Your task to perform on an android device: check android version Image 0: 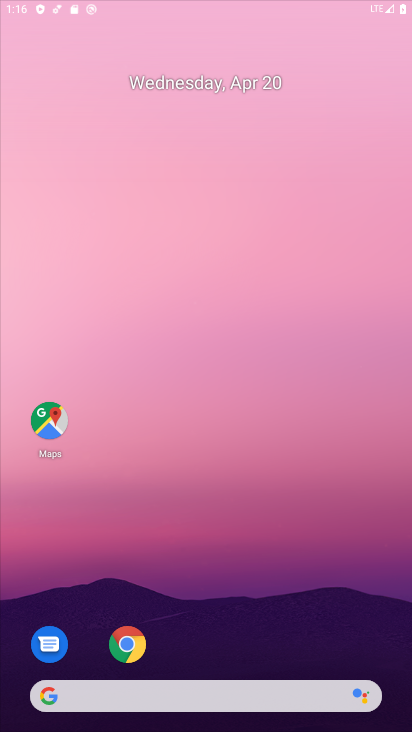
Step 0: drag from (300, 640) to (263, 133)
Your task to perform on an android device: check android version Image 1: 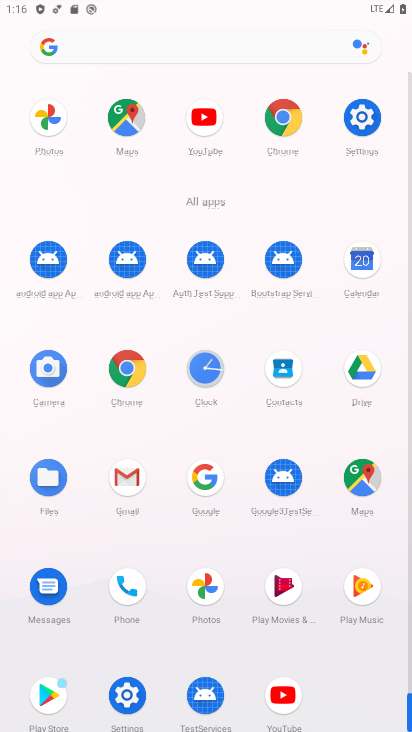
Step 1: click (373, 115)
Your task to perform on an android device: check android version Image 2: 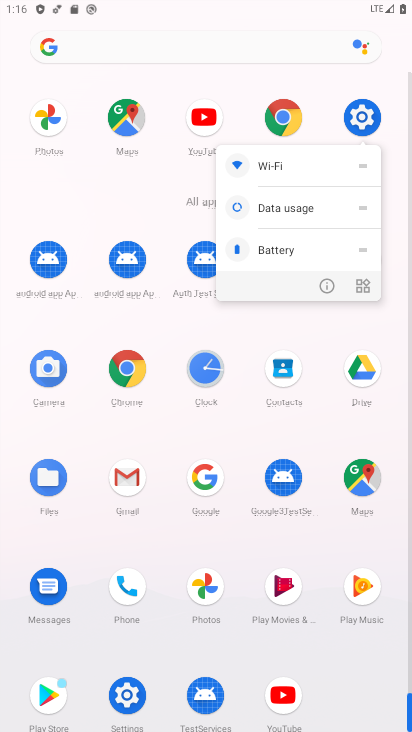
Step 2: click (365, 116)
Your task to perform on an android device: check android version Image 3: 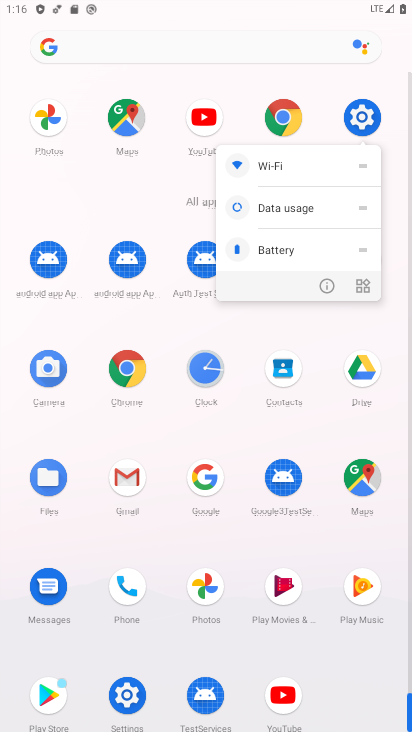
Step 3: click (365, 116)
Your task to perform on an android device: check android version Image 4: 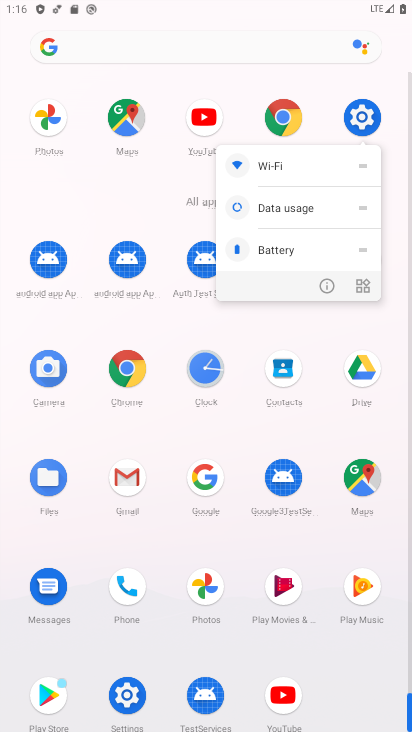
Step 4: click (365, 116)
Your task to perform on an android device: check android version Image 5: 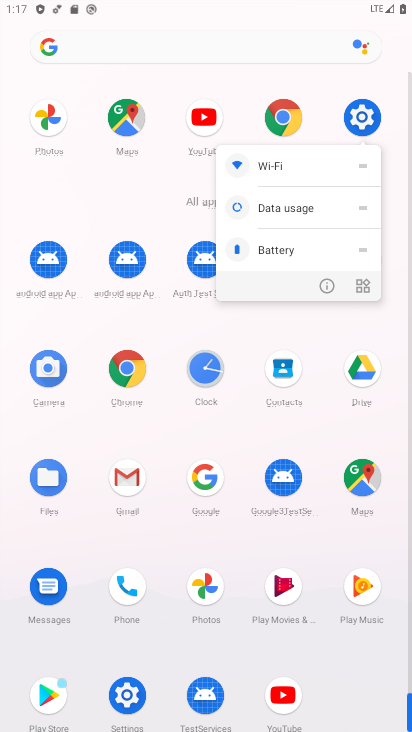
Step 5: click (129, 682)
Your task to perform on an android device: check android version Image 6: 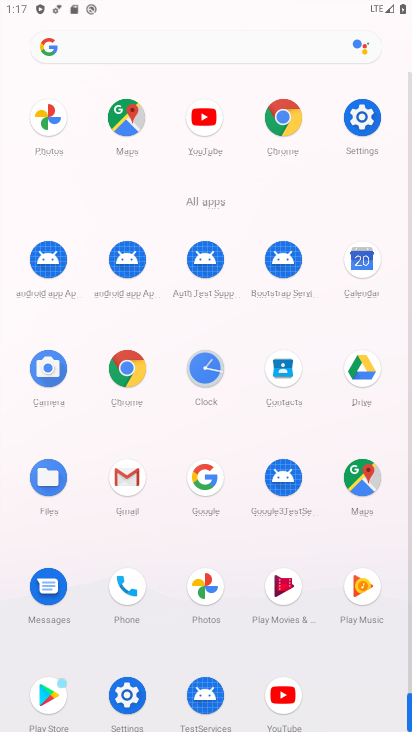
Step 6: click (128, 681)
Your task to perform on an android device: check android version Image 7: 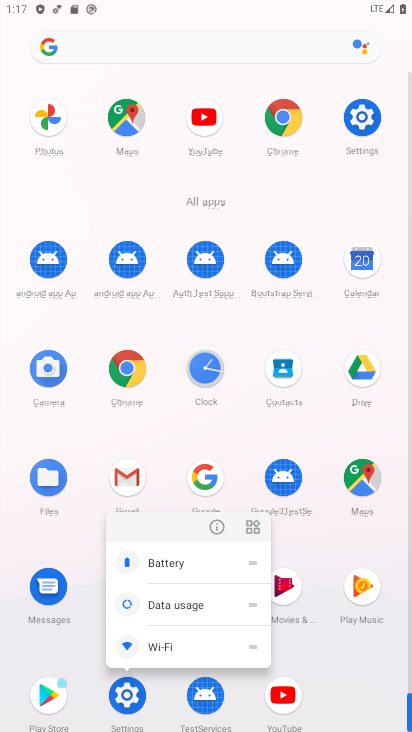
Step 7: click (130, 683)
Your task to perform on an android device: check android version Image 8: 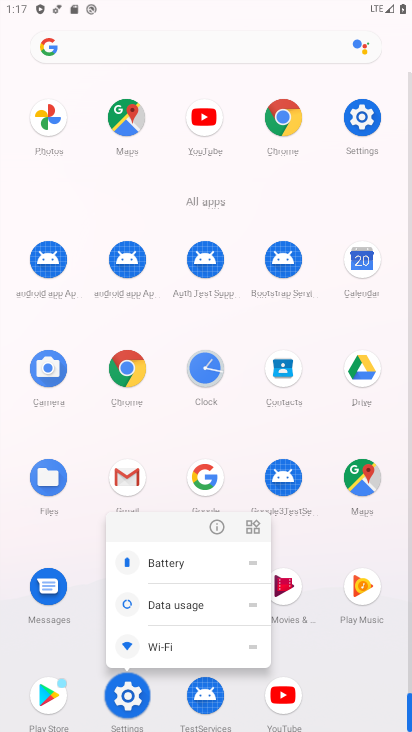
Step 8: click (130, 683)
Your task to perform on an android device: check android version Image 9: 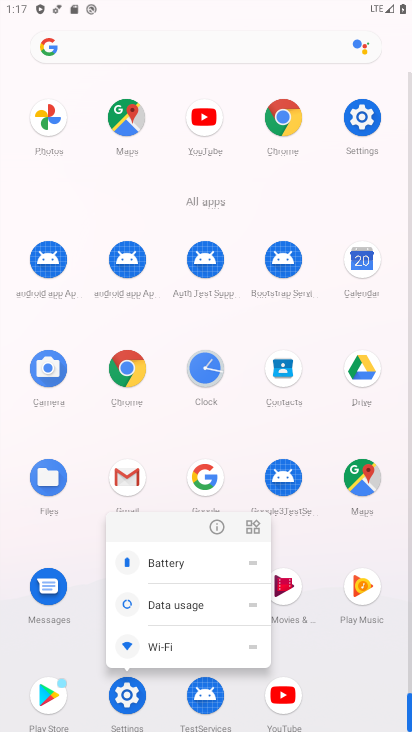
Step 9: click (130, 683)
Your task to perform on an android device: check android version Image 10: 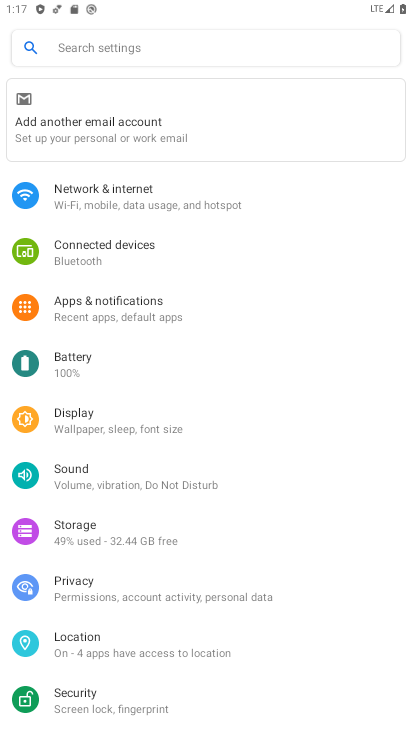
Step 10: drag from (129, 690) to (136, 235)
Your task to perform on an android device: check android version Image 11: 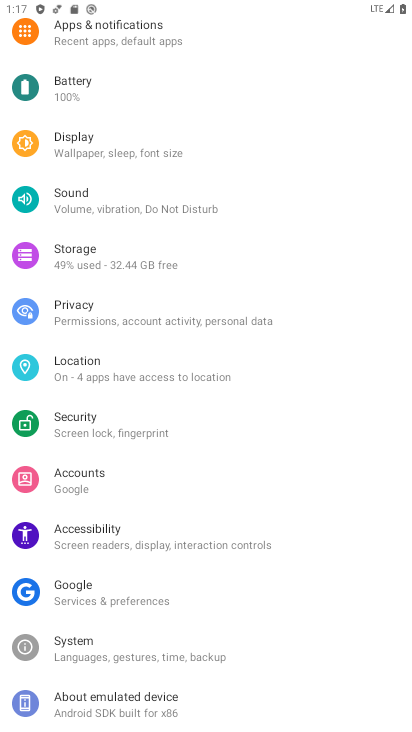
Step 11: click (128, 704)
Your task to perform on an android device: check android version Image 12: 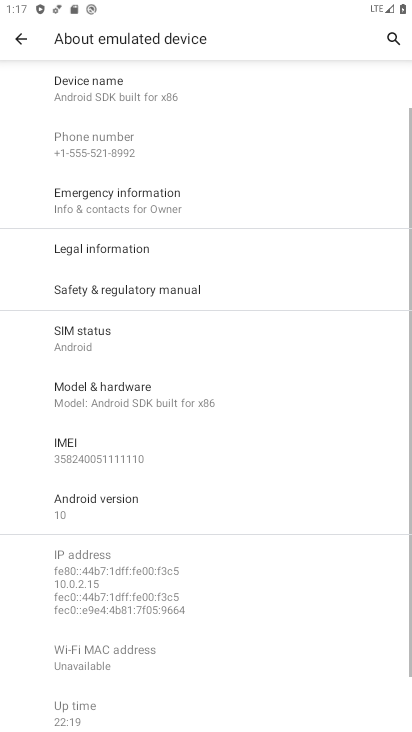
Step 12: drag from (142, 192) to (173, 605)
Your task to perform on an android device: check android version Image 13: 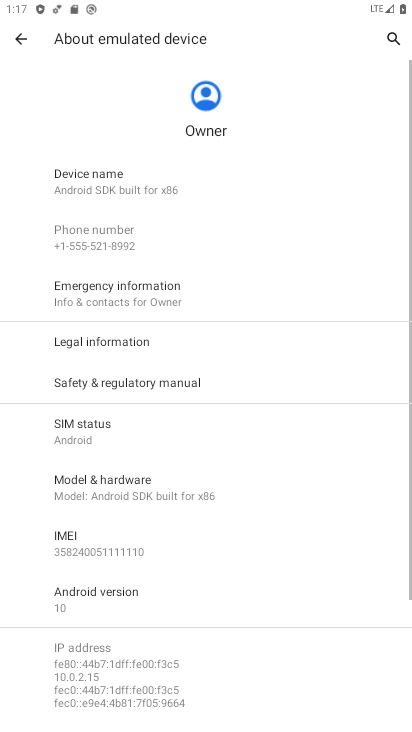
Step 13: click (110, 604)
Your task to perform on an android device: check android version Image 14: 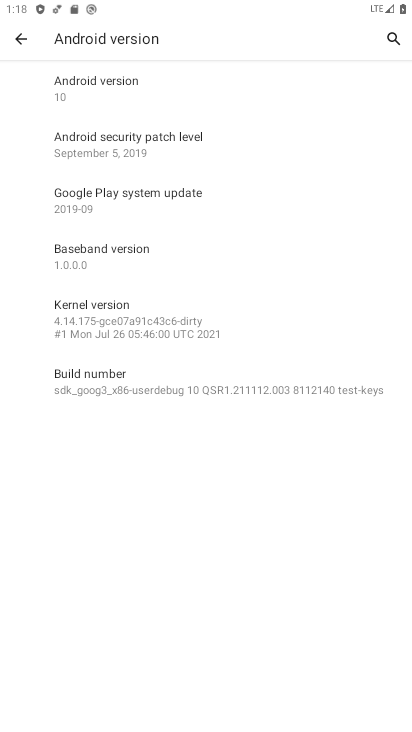
Step 14: task complete